Your task to perform on an android device: Open the map Image 0: 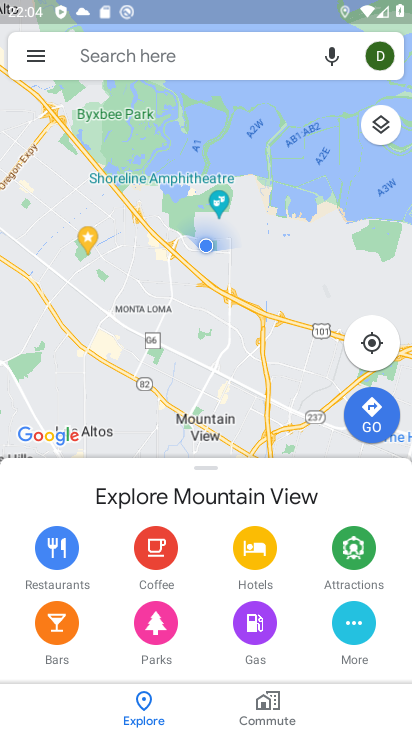
Step 0: drag from (265, 428) to (247, 309)
Your task to perform on an android device: Open the map Image 1: 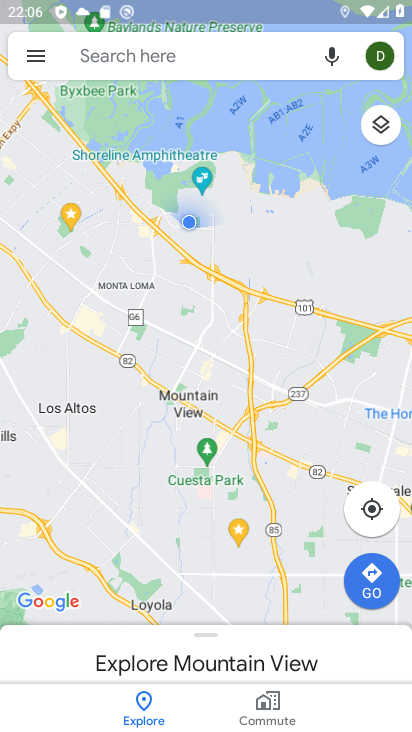
Step 1: task complete